Your task to perform on an android device: Open ESPN.com Image 0: 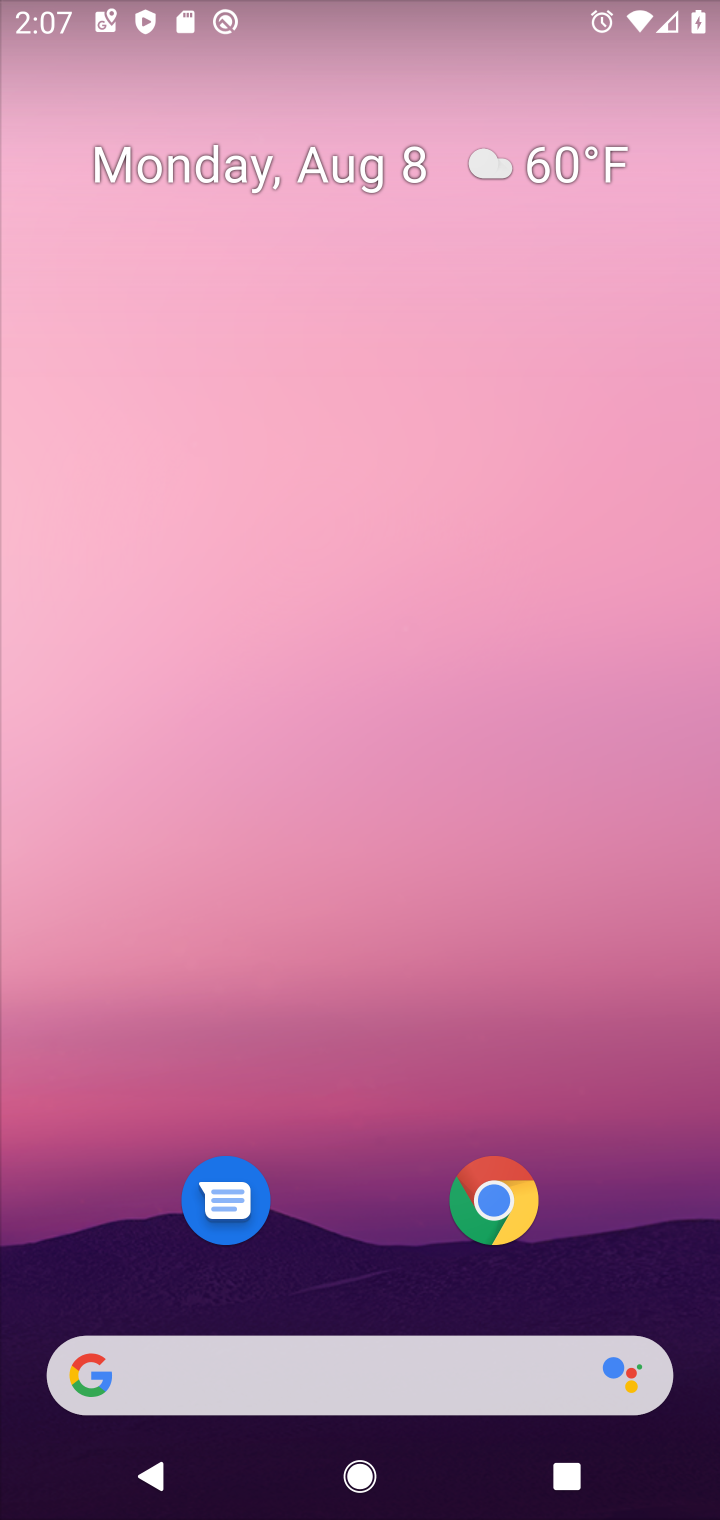
Step 0: press home button
Your task to perform on an android device: Open ESPN.com Image 1: 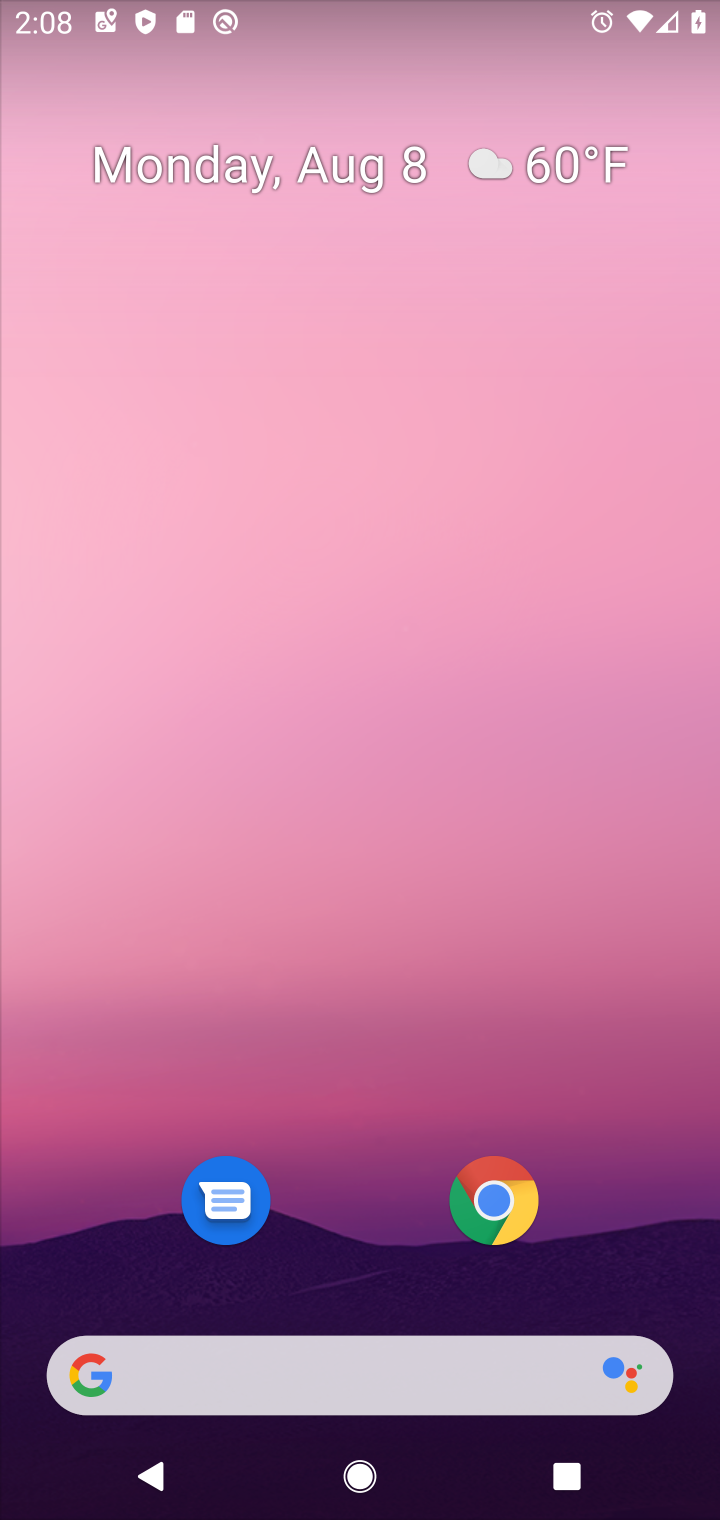
Step 1: drag from (397, 1285) to (426, 356)
Your task to perform on an android device: Open ESPN.com Image 2: 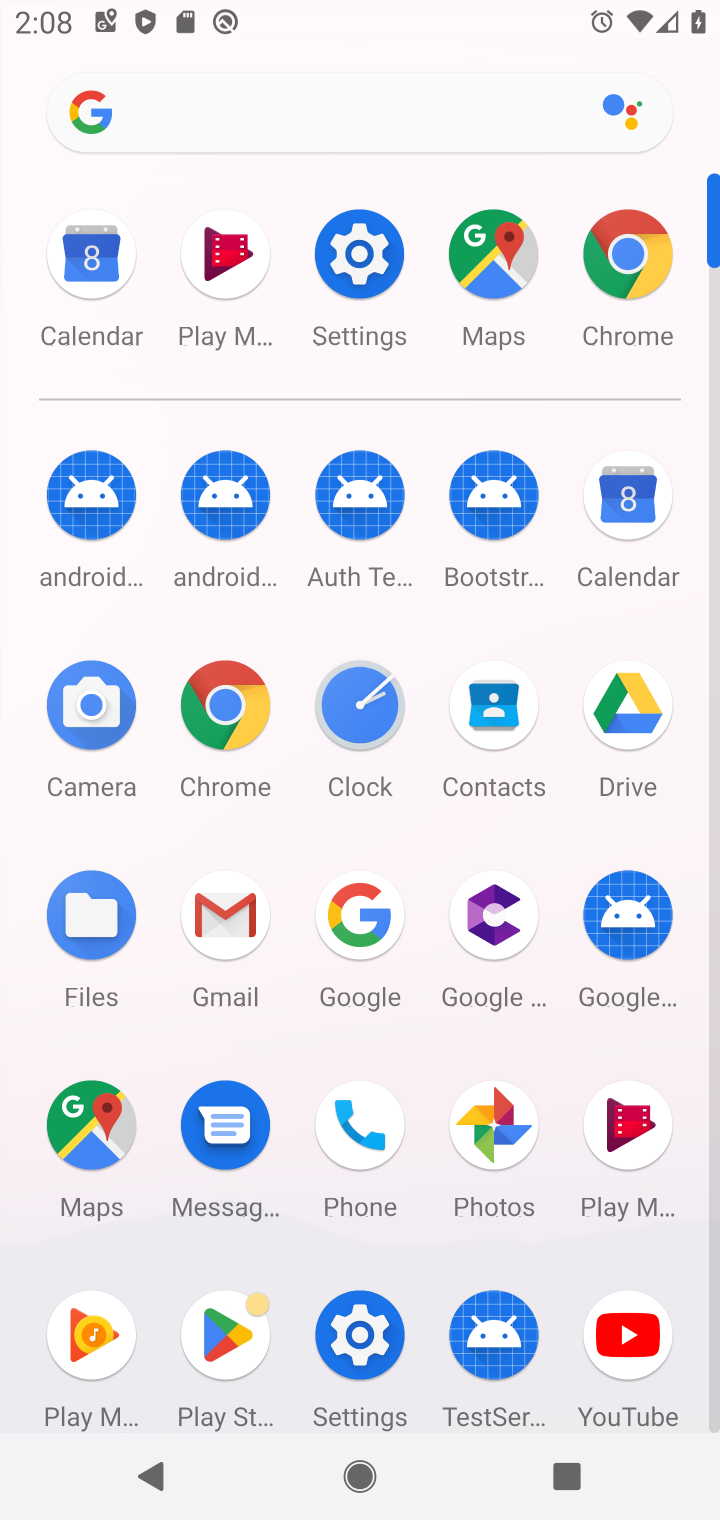
Step 2: click (220, 700)
Your task to perform on an android device: Open ESPN.com Image 3: 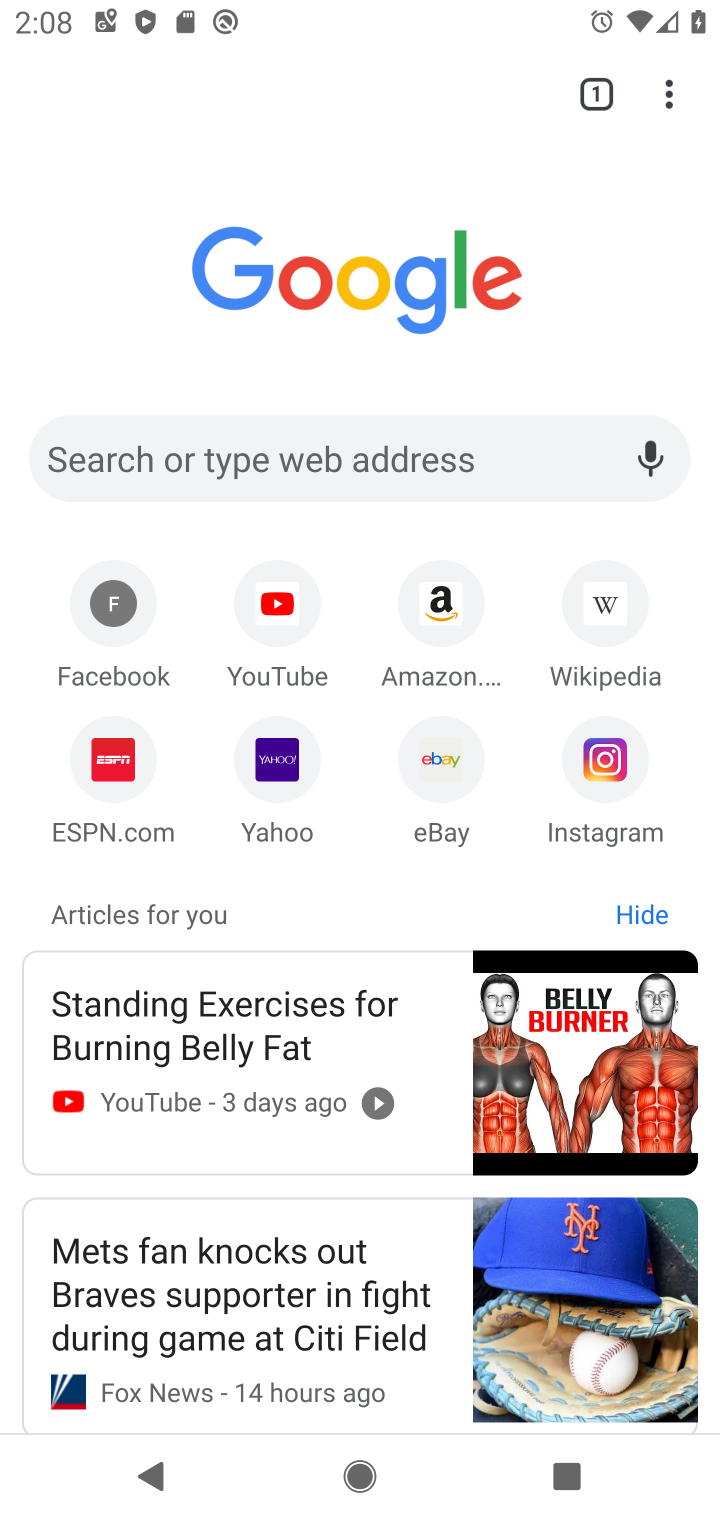
Step 3: click (112, 752)
Your task to perform on an android device: Open ESPN.com Image 4: 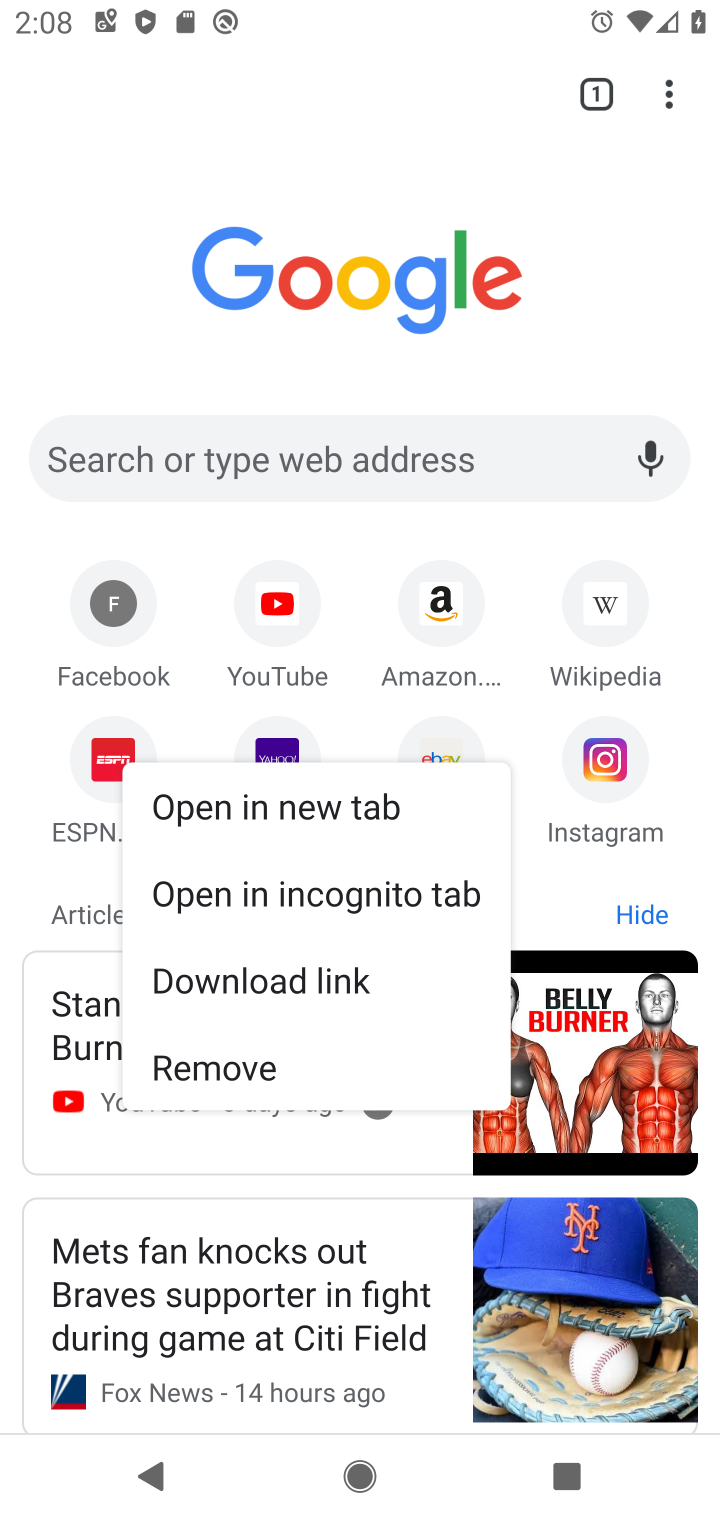
Step 4: click (112, 752)
Your task to perform on an android device: Open ESPN.com Image 5: 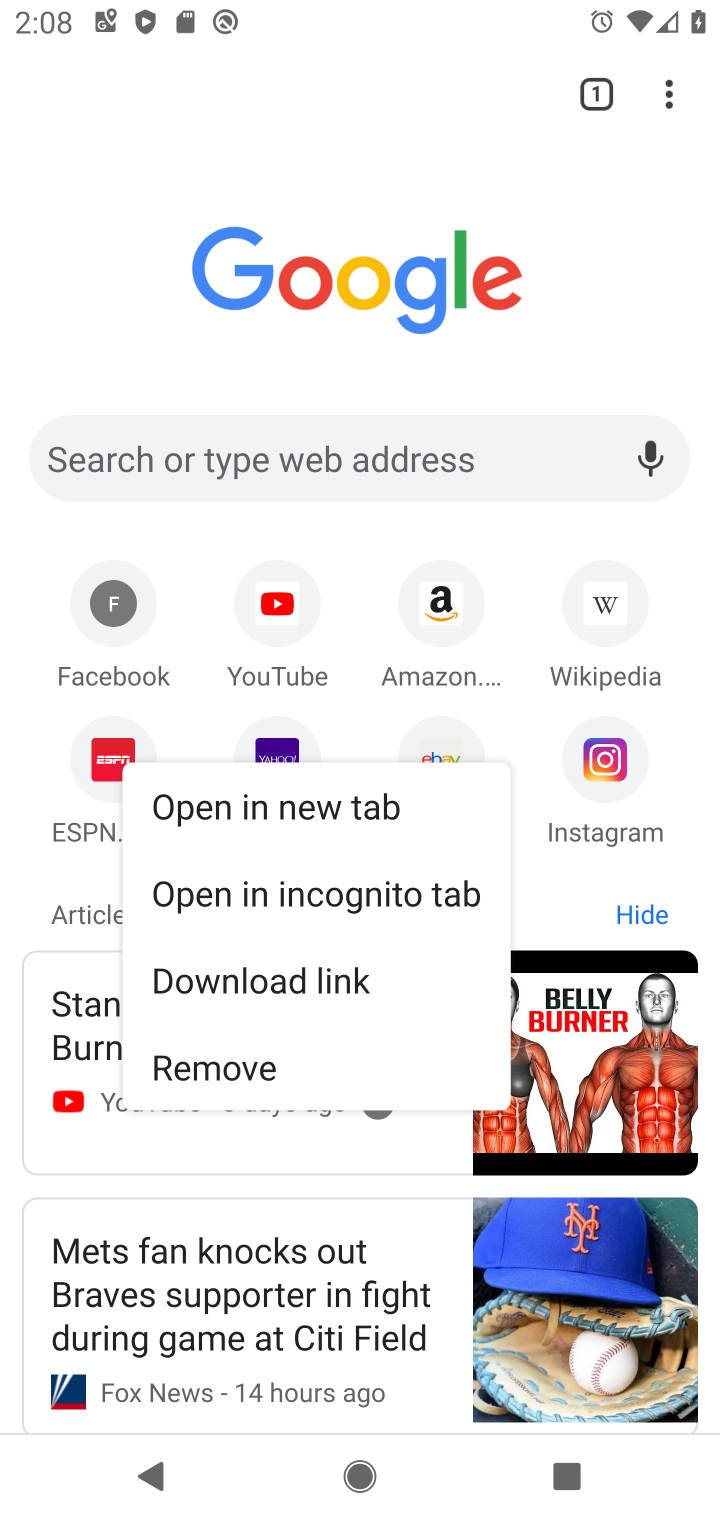
Step 5: click (99, 760)
Your task to perform on an android device: Open ESPN.com Image 6: 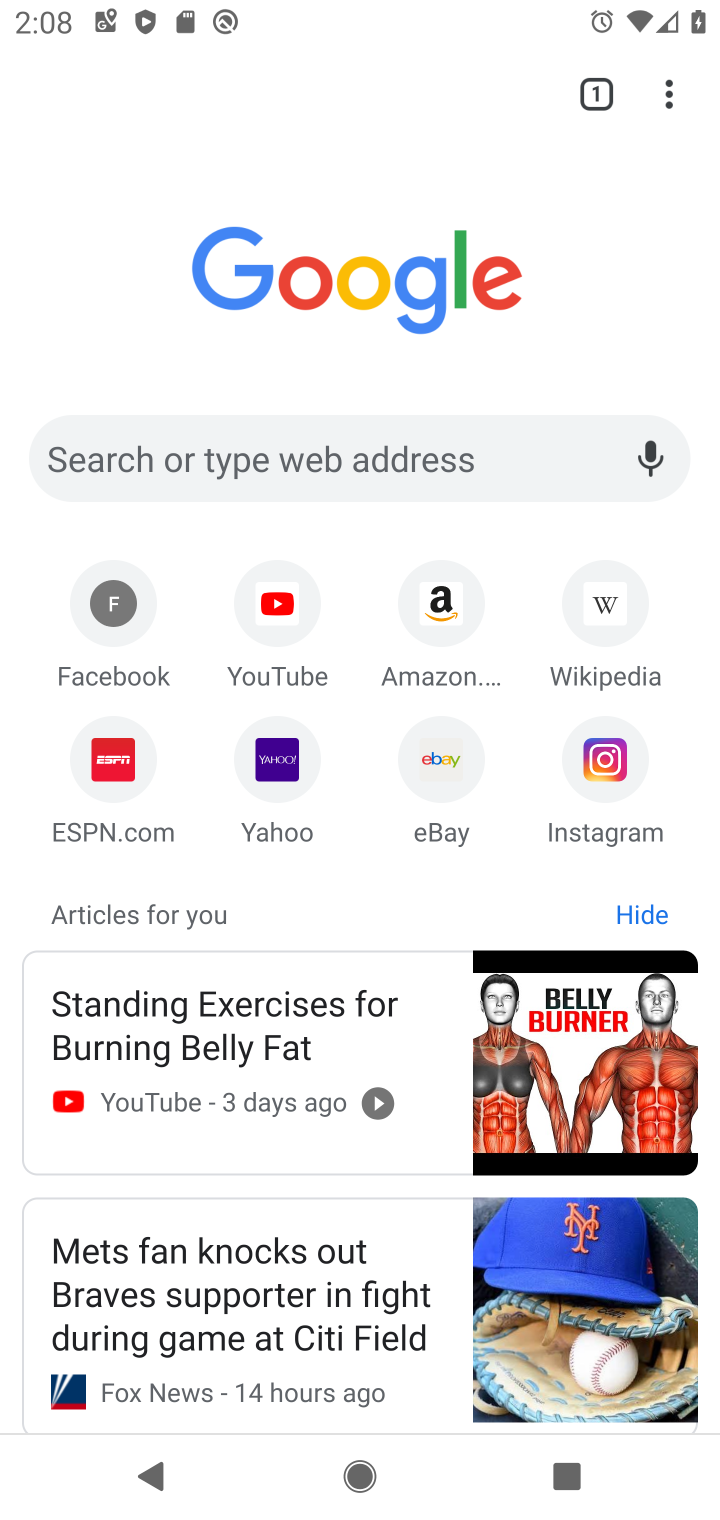
Step 6: click (117, 754)
Your task to perform on an android device: Open ESPN.com Image 7: 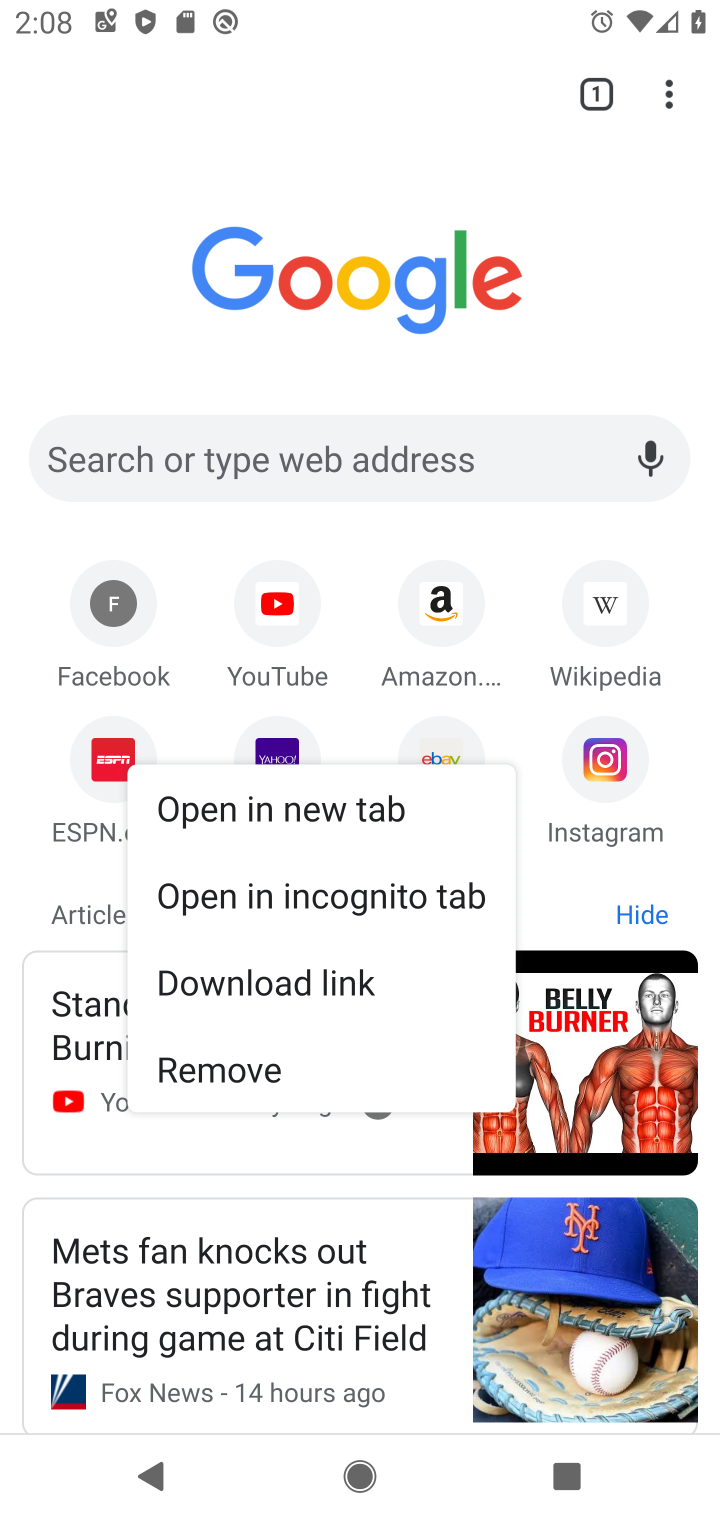
Step 7: click (81, 777)
Your task to perform on an android device: Open ESPN.com Image 8: 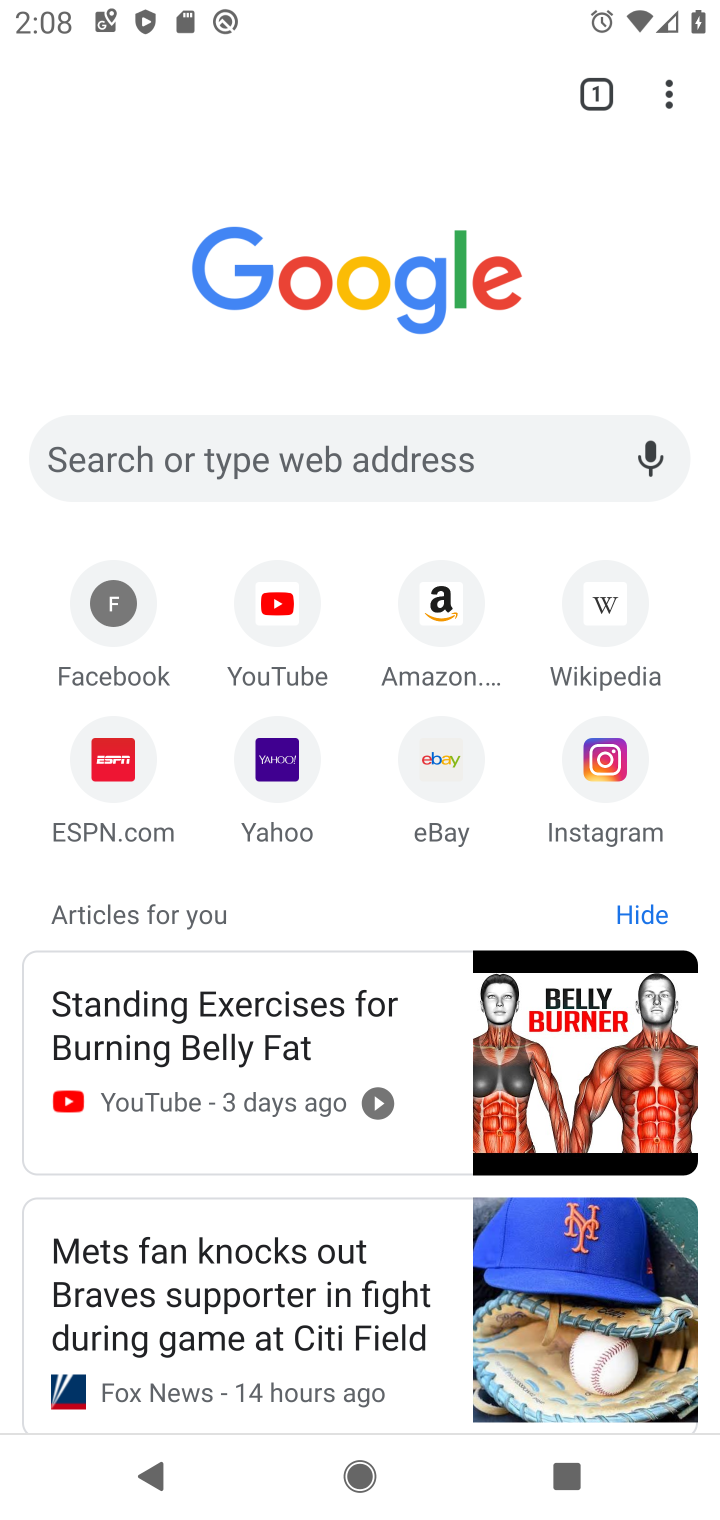
Step 8: click (83, 778)
Your task to perform on an android device: Open ESPN.com Image 9: 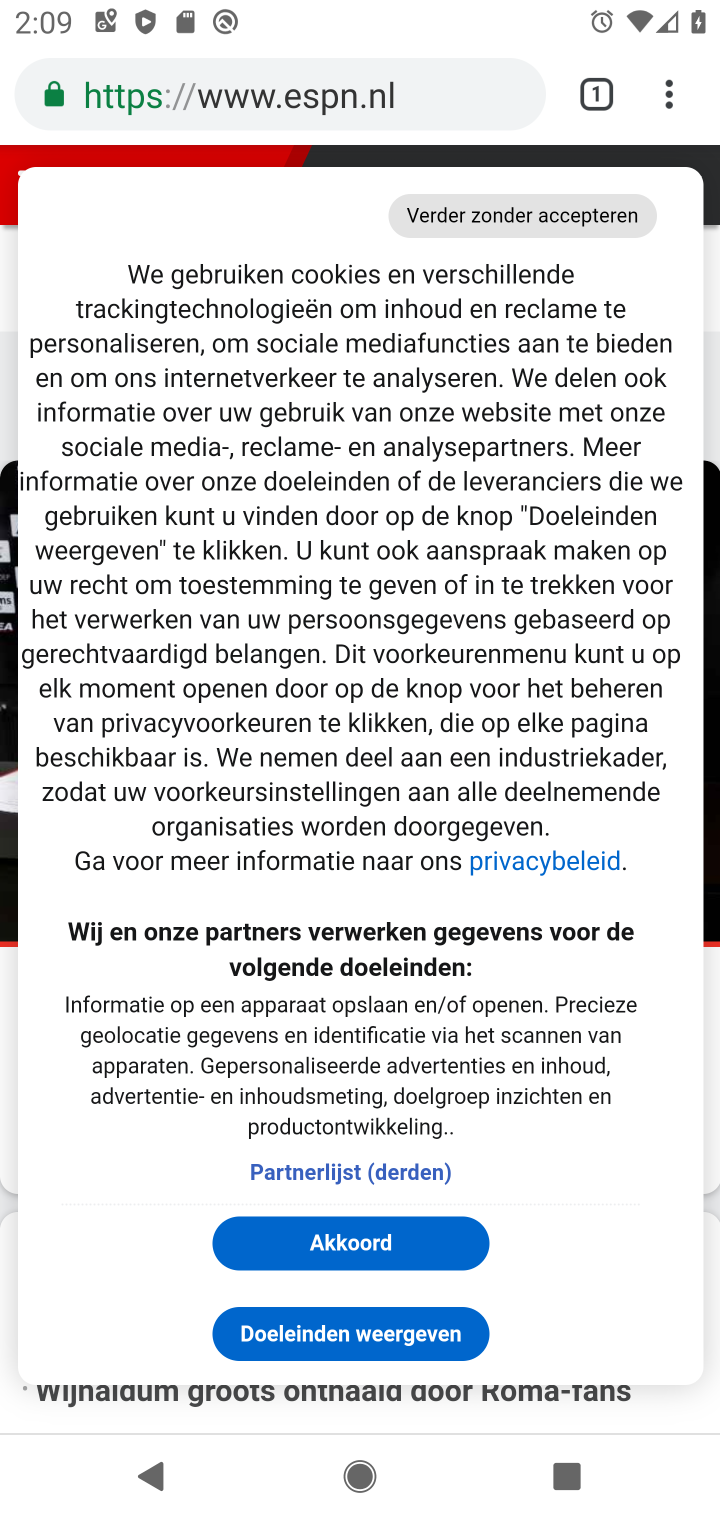
Step 9: click (340, 1244)
Your task to perform on an android device: Open ESPN.com Image 10: 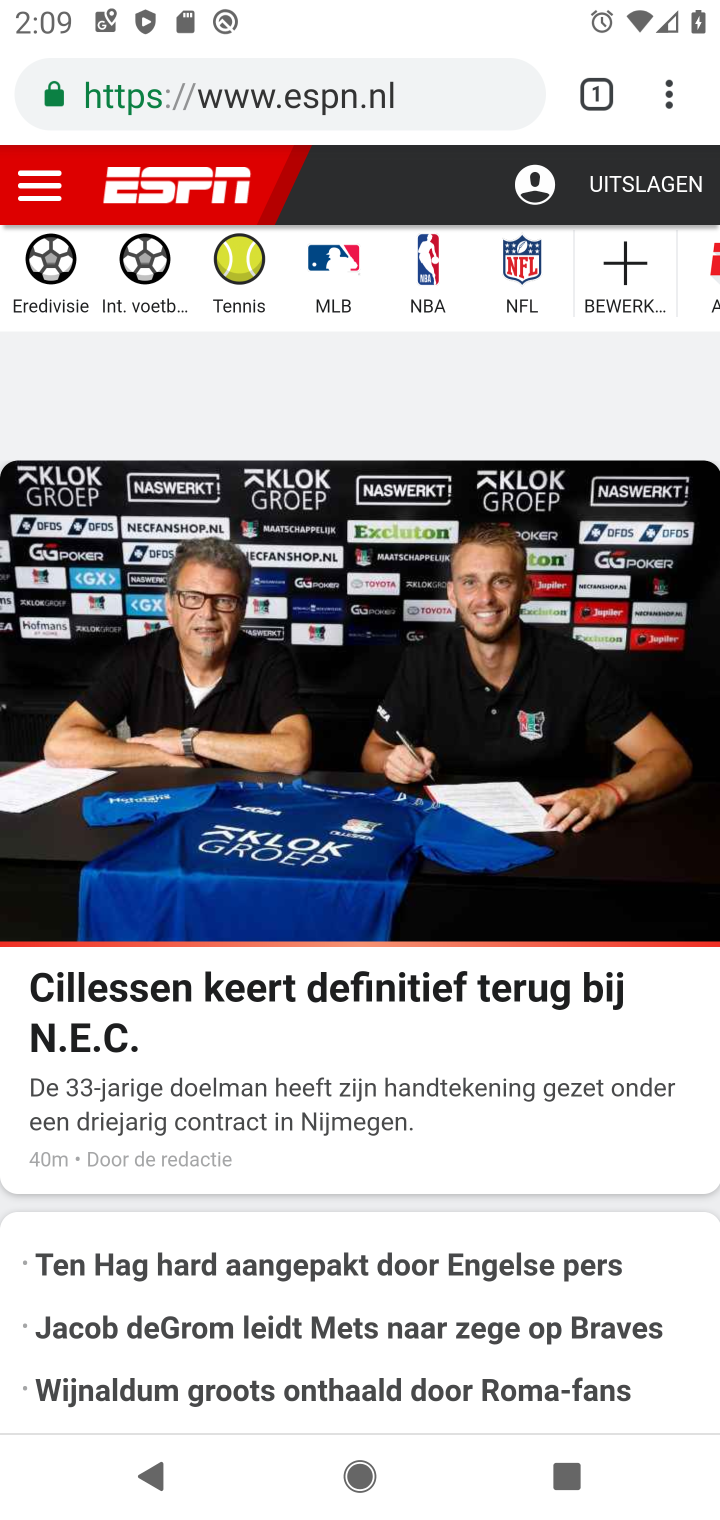
Step 10: task complete